Your task to perform on an android device: open device folders in google photos Image 0: 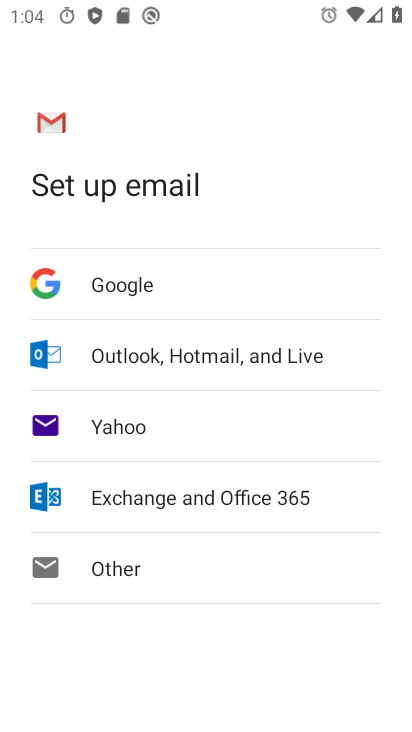
Step 0: press home button
Your task to perform on an android device: open device folders in google photos Image 1: 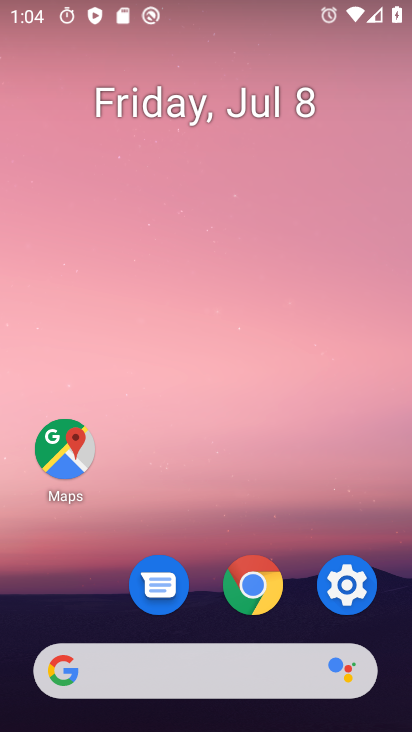
Step 1: drag from (213, 709) to (264, 70)
Your task to perform on an android device: open device folders in google photos Image 2: 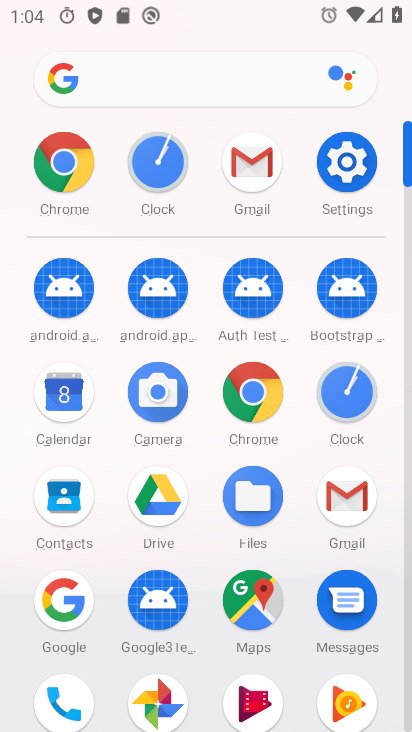
Step 2: click (172, 700)
Your task to perform on an android device: open device folders in google photos Image 3: 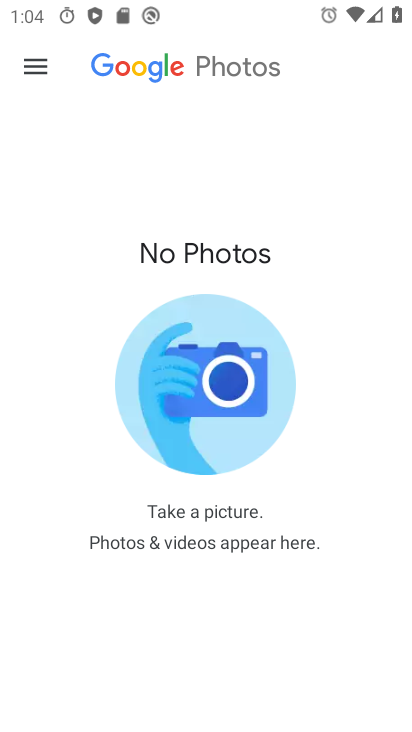
Step 3: click (30, 71)
Your task to perform on an android device: open device folders in google photos Image 4: 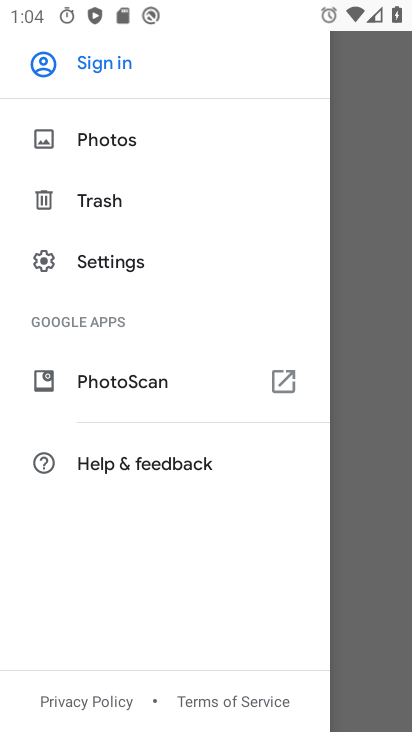
Step 4: click (94, 129)
Your task to perform on an android device: open device folders in google photos Image 5: 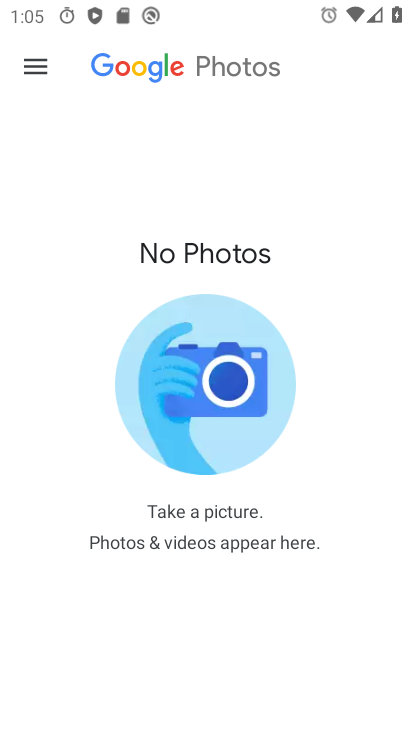
Step 5: task complete